Your task to perform on an android device: open app "Airtel Thanks" Image 0: 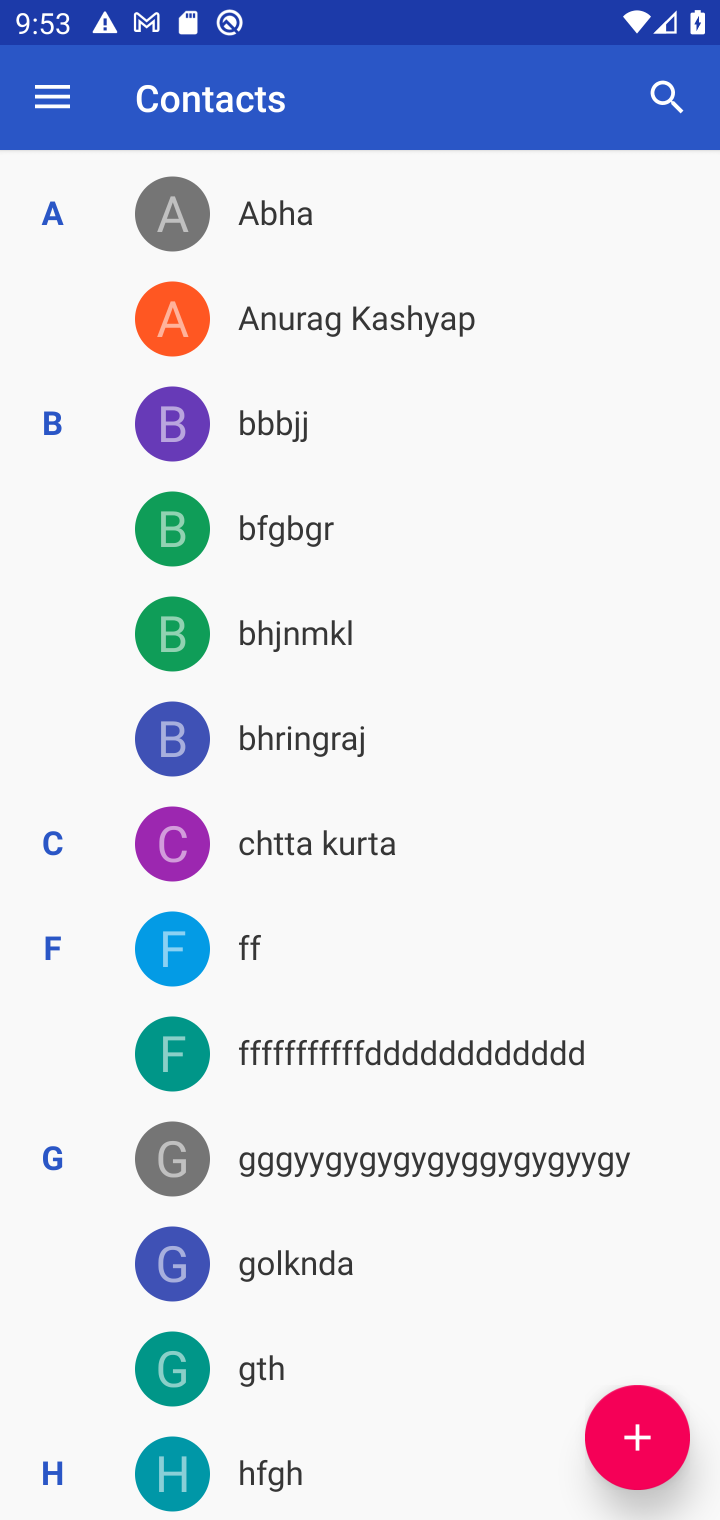
Step 0: press home button
Your task to perform on an android device: open app "Airtel Thanks" Image 1: 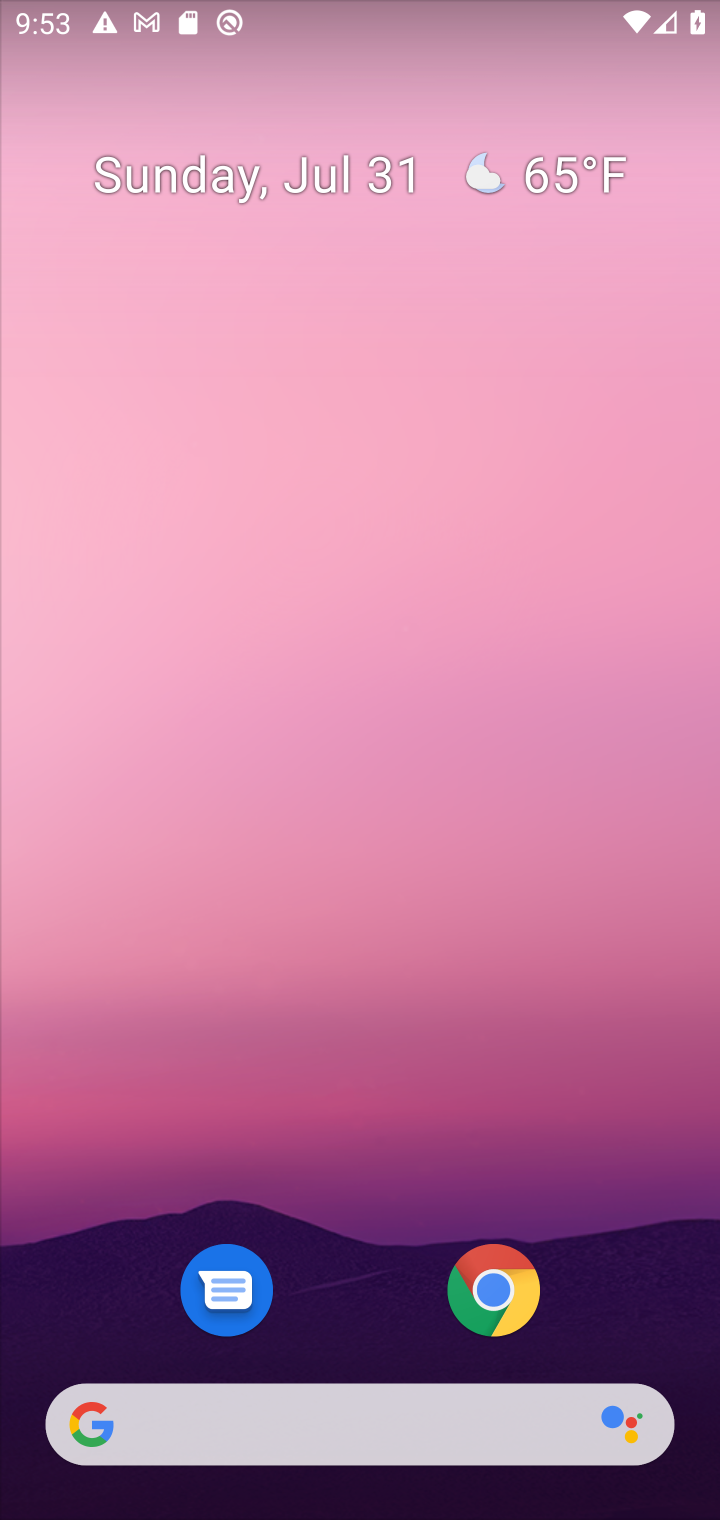
Step 1: drag from (597, 1306) to (537, 186)
Your task to perform on an android device: open app "Airtel Thanks" Image 2: 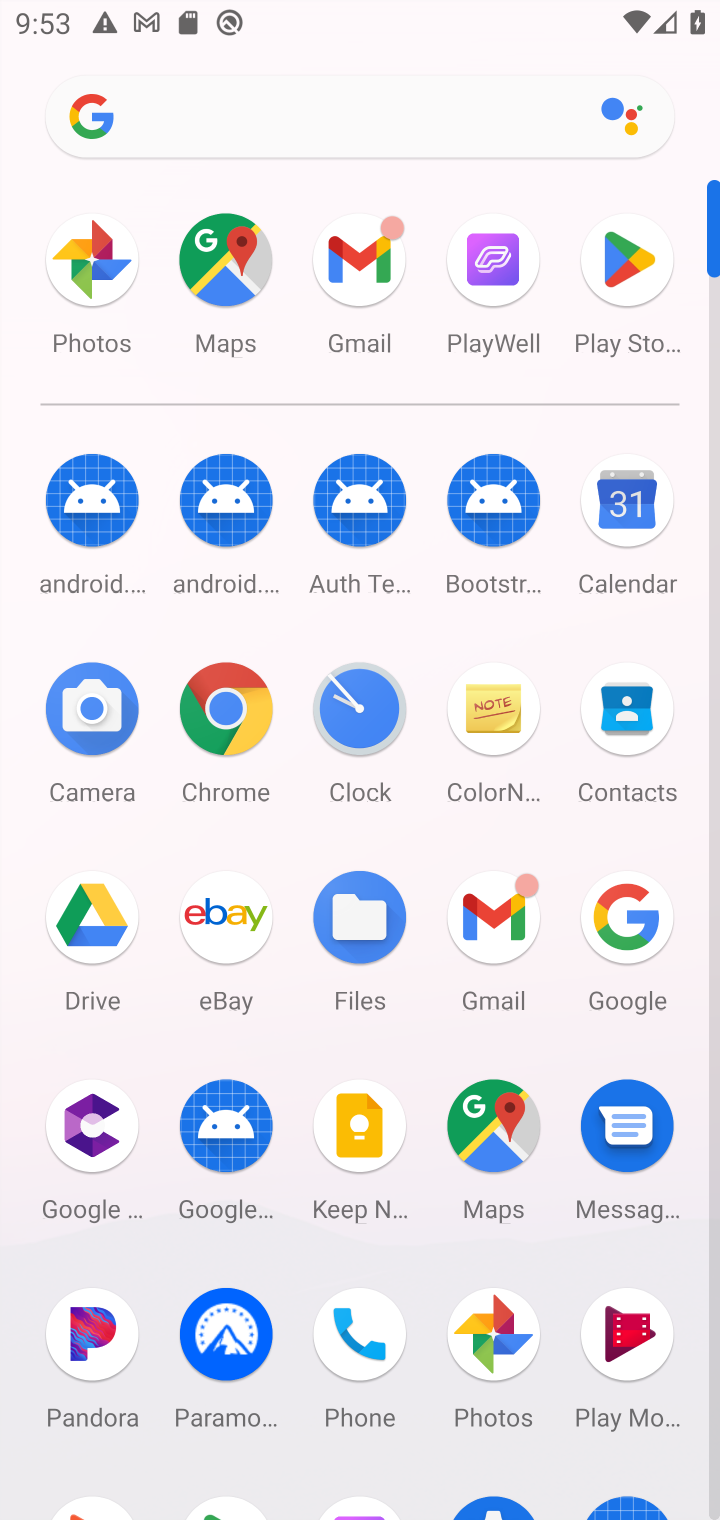
Step 2: click (637, 272)
Your task to perform on an android device: open app "Airtel Thanks" Image 3: 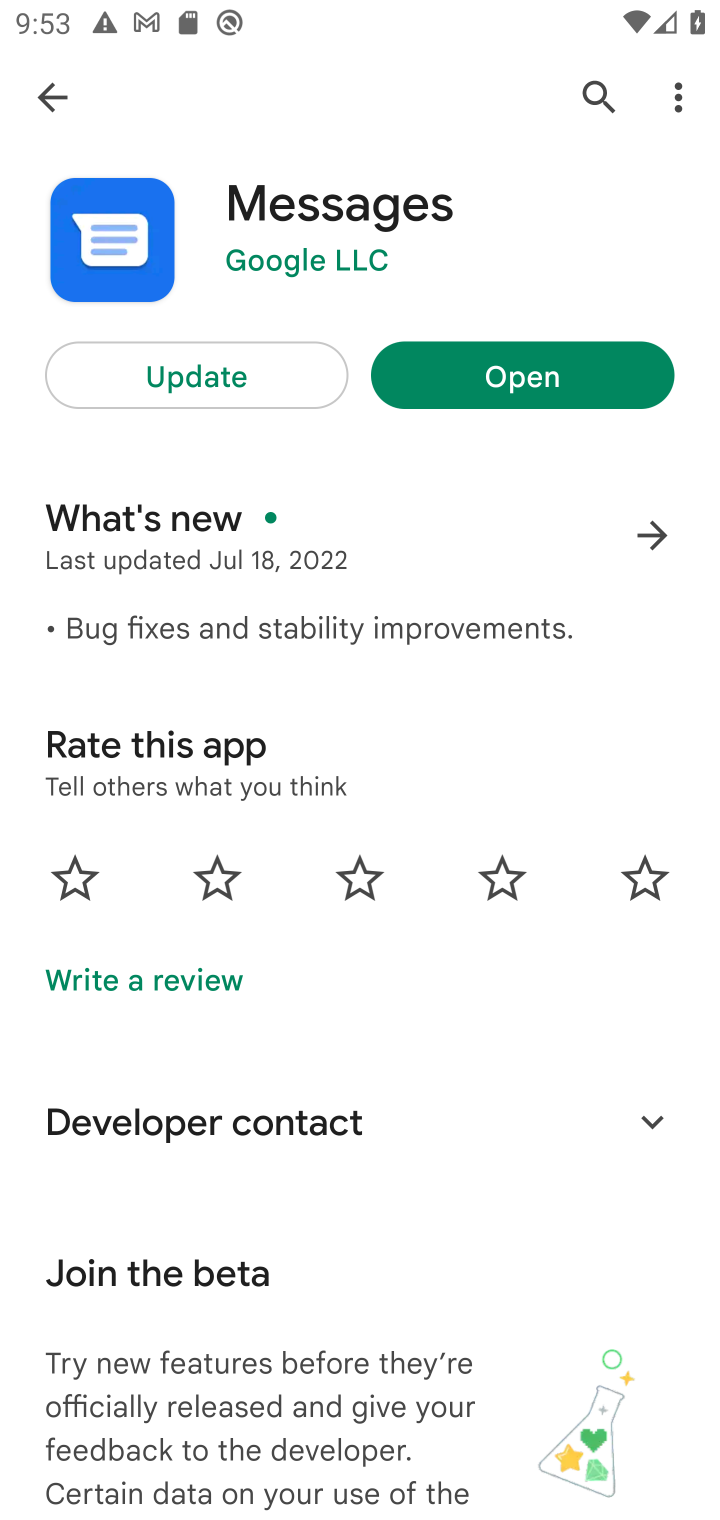
Step 3: click (605, 79)
Your task to perform on an android device: open app "Airtel Thanks" Image 4: 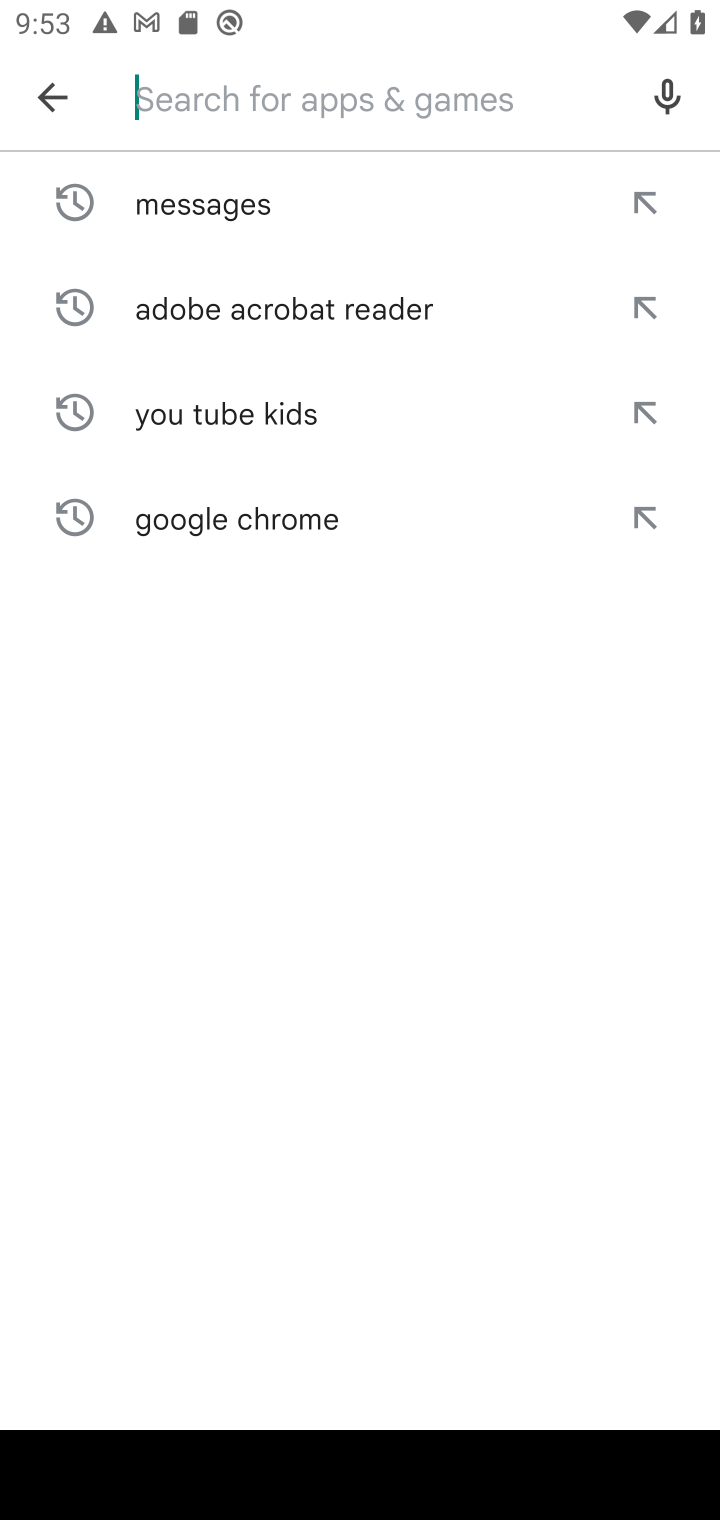
Step 4: click (370, 102)
Your task to perform on an android device: open app "Airtel Thanks" Image 5: 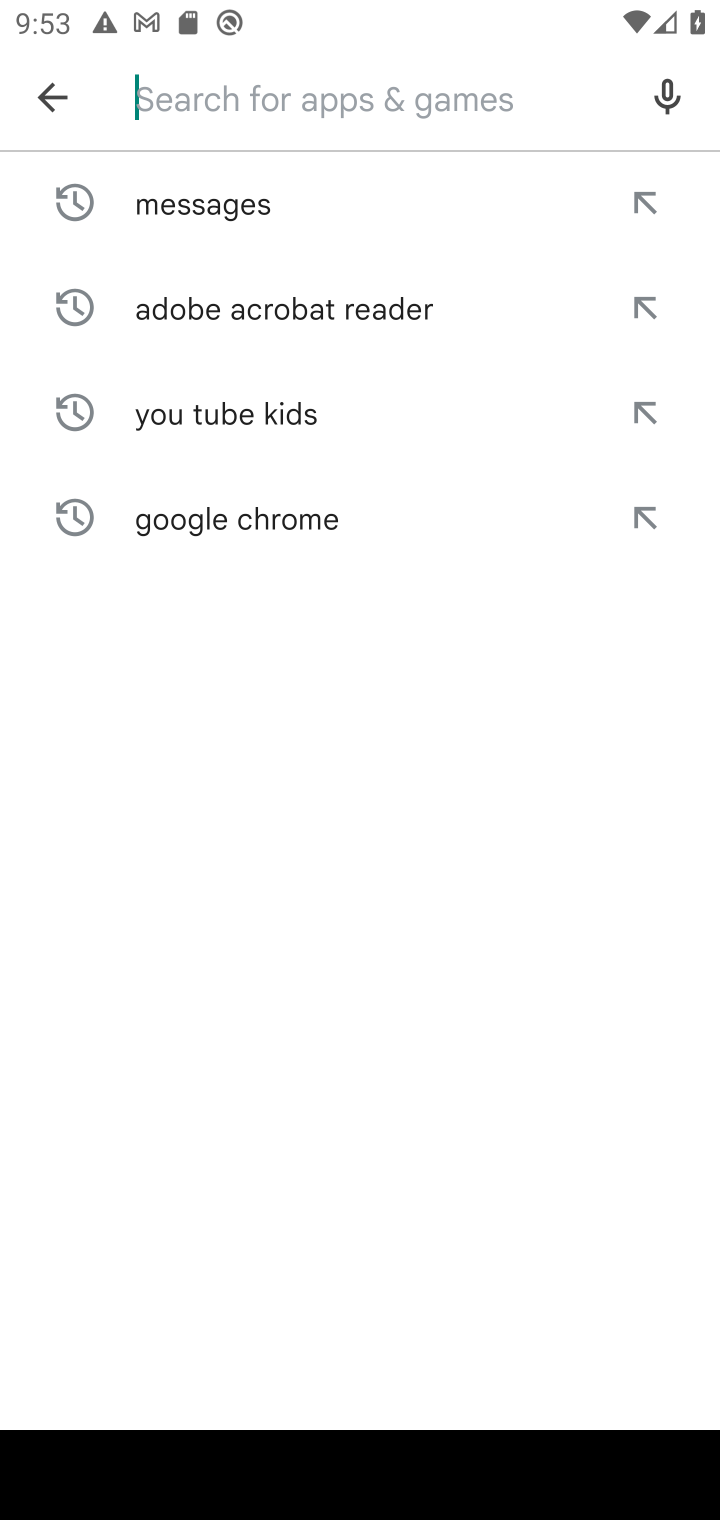
Step 5: type "airtel thanks "
Your task to perform on an android device: open app "Airtel Thanks" Image 6: 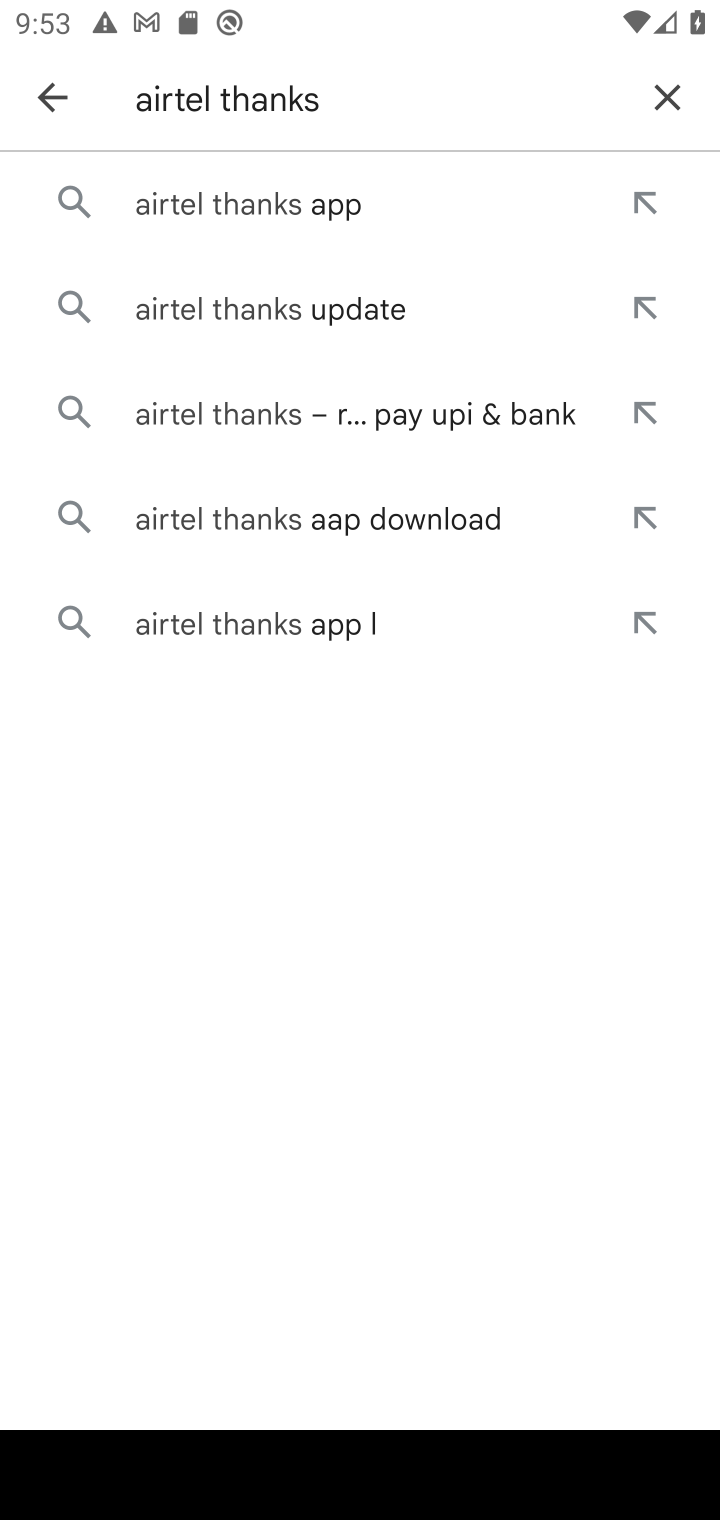
Step 6: click (352, 208)
Your task to perform on an android device: open app "Airtel Thanks" Image 7: 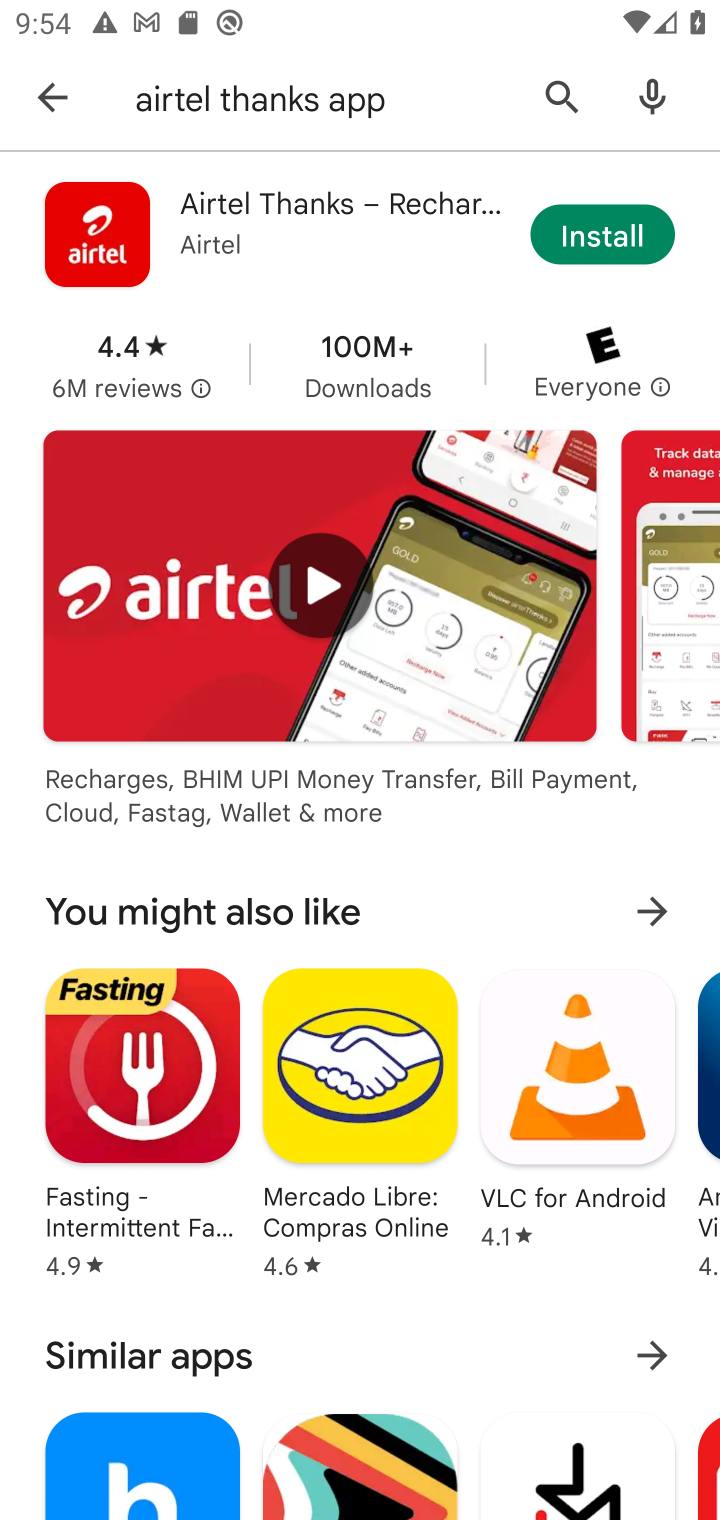
Step 7: task complete